Your task to perform on an android device: toggle notification dots Image 0: 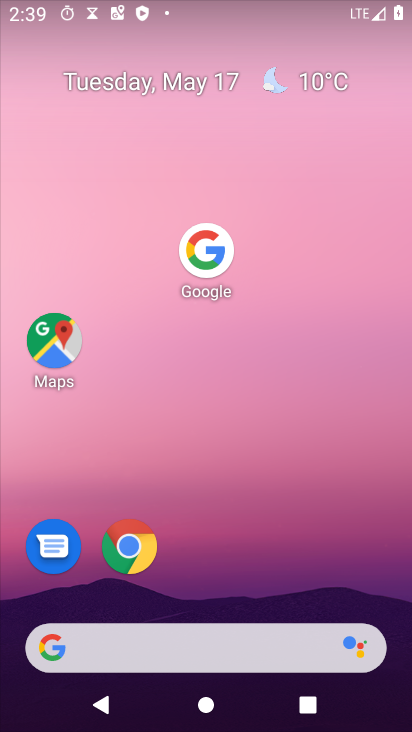
Step 0: press home button
Your task to perform on an android device: toggle notification dots Image 1: 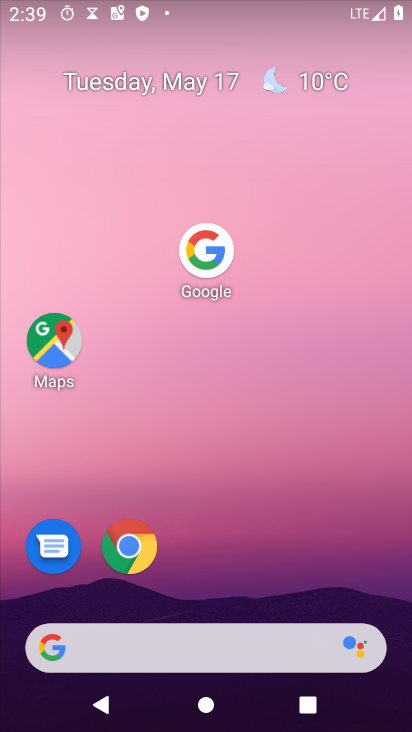
Step 1: drag from (177, 652) to (338, 76)
Your task to perform on an android device: toggle notification dots Image 2: 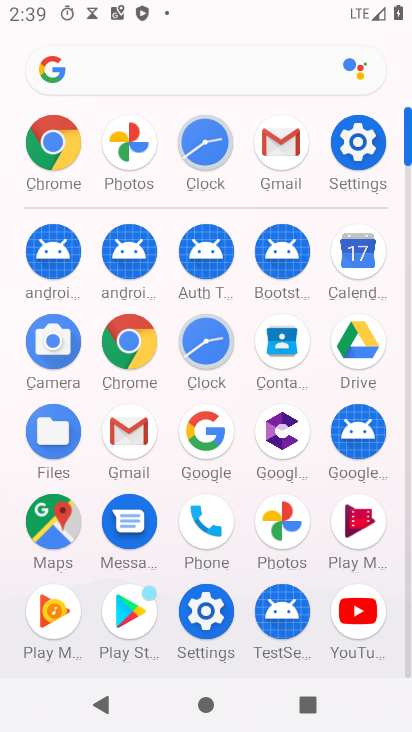
Step 2: click (362, 151)
Your task to perform on an android device: toggle notification dots Image 3: 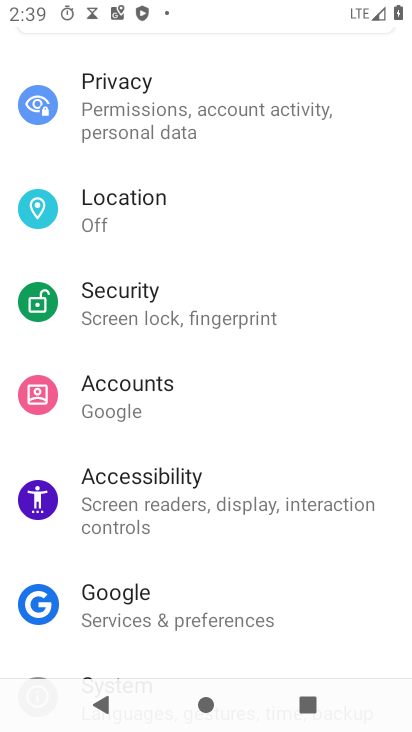
Step 3: drag from (277, 446) to (324, 94)
Your task to perform on an android device: toggle notification dots Image 4: 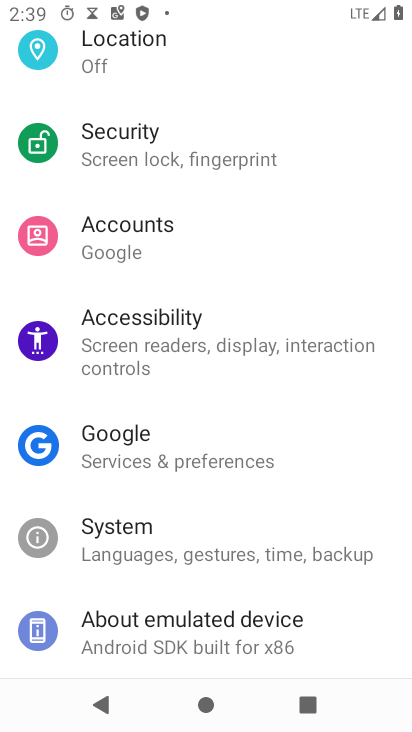
Step 4: drag from (319, 96) to (295, 623)
Your task to perform on an android device: toggle notification dots Image 5: 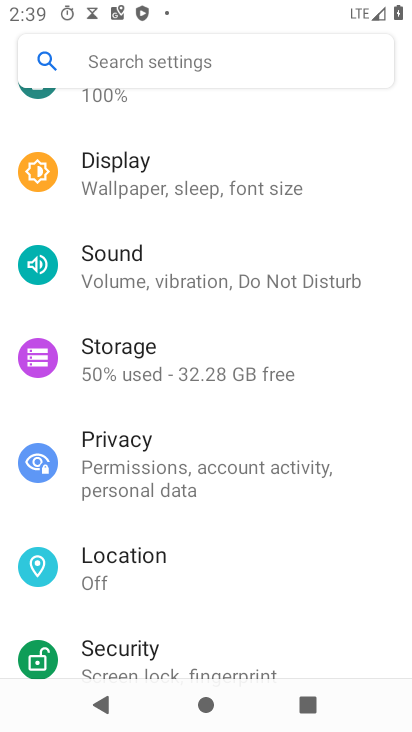
Step 5: drag from (328, 130) to (302, 579)
Your task to perform on an android device: toggle notification dots Image 6: 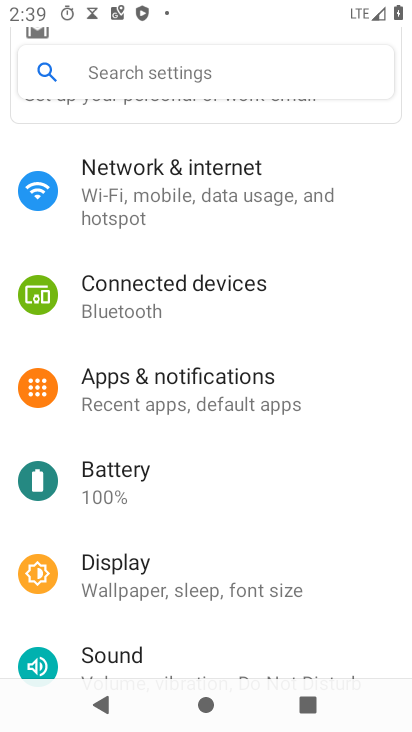
Step 6: click (207, 372)
Your task to perform on an android device: toggle notification dots Image 7: 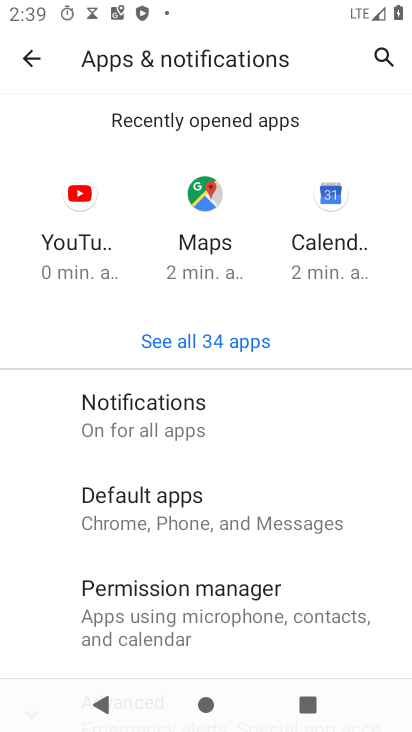
Step 7: click (164, 409)
Your task to perform on an android device: toggle notification dots Image 8: 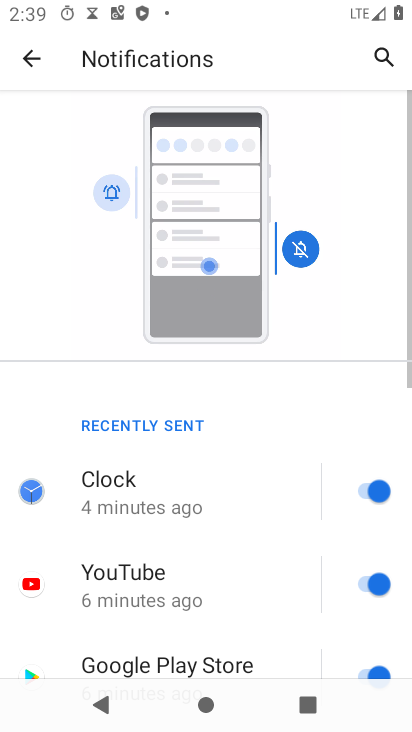
Step 8: drag from (245, 577) to (355, 57)
Your task to perform on an android device: toggle notification dots Image 9: 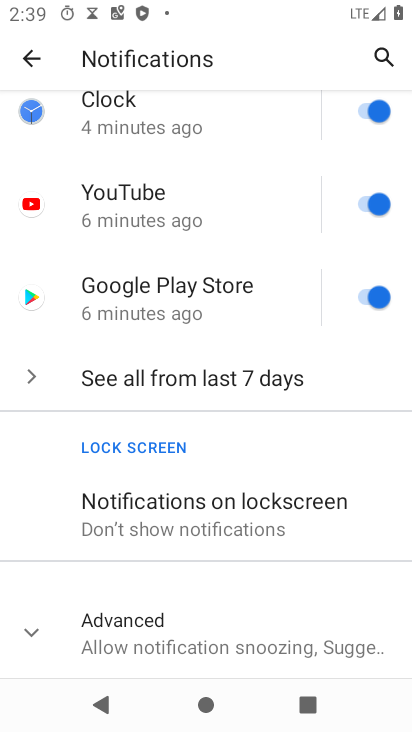
Step 9: drag from (247, 619) to (321, 282)
Your task to perform on an android device: toggle notification dots Image 10: 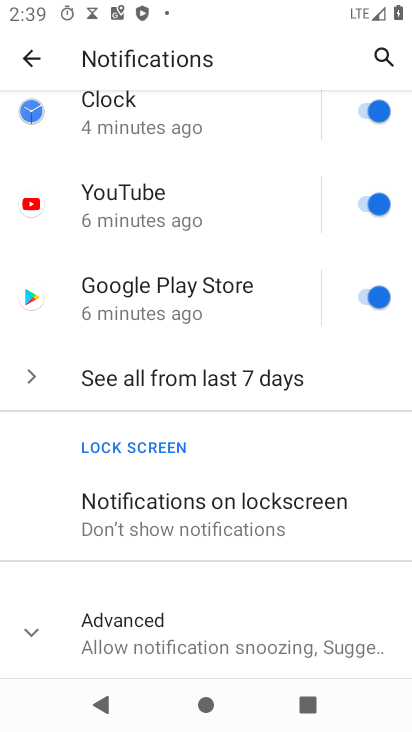
Step 10: click (151, 629)
Your task to perform on an android device: toggle notification dots Image 11: 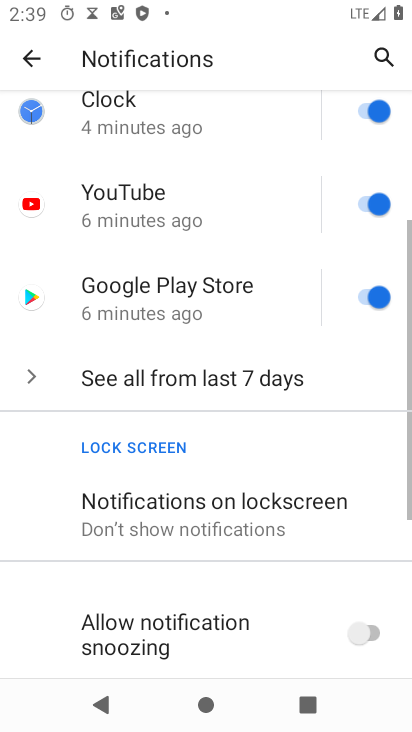
Step 11: drag from (267, 658) to (377, 135)
Your task to perform on an android device: toggle notification dots Image 12: 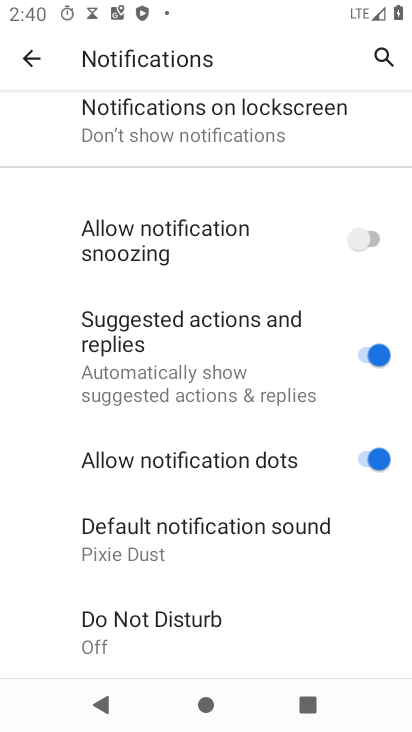
Step 12: click (375, 455)
Your task to perform on an android device: toggle notification dots Image 13: 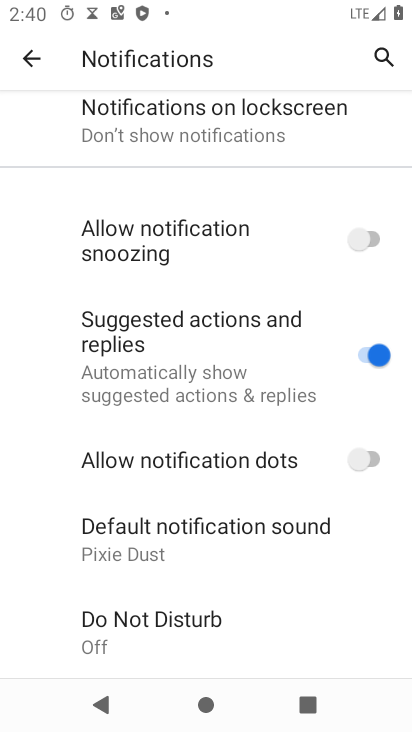
Step 13: task complete